Your task to perform on an android device: Go to sound settings Image 0: 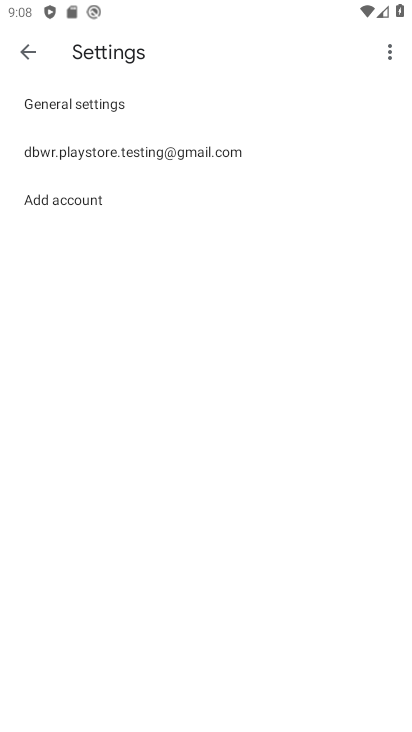
Step 0: press home button
Your task to perform on an android device: Go to sound settings Image 1: 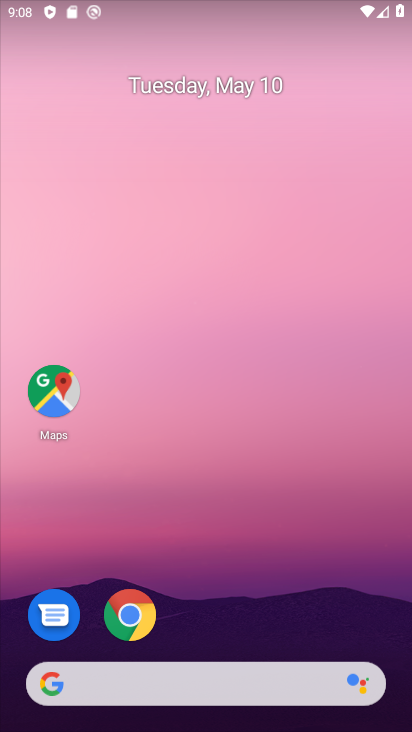
Step 1: drag from (187, 665) to (210, 293)
Your task to perform on an android device: Go to sound settings Image 2: 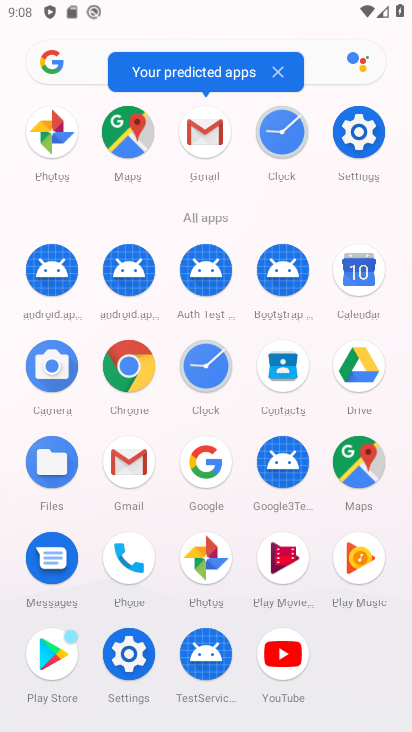
Step 2: click (129, 655)
Your task to perform on an android device: Go to sound settings Image 3: 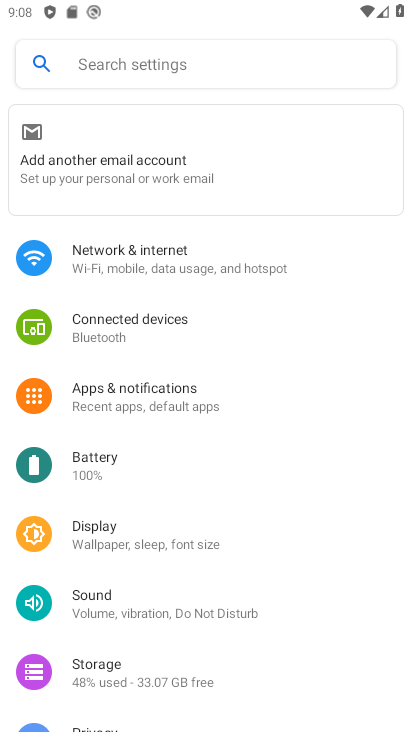
Step 3: click (111, 604)
Your task to perform on an android device: Go to sound settings Image 4: 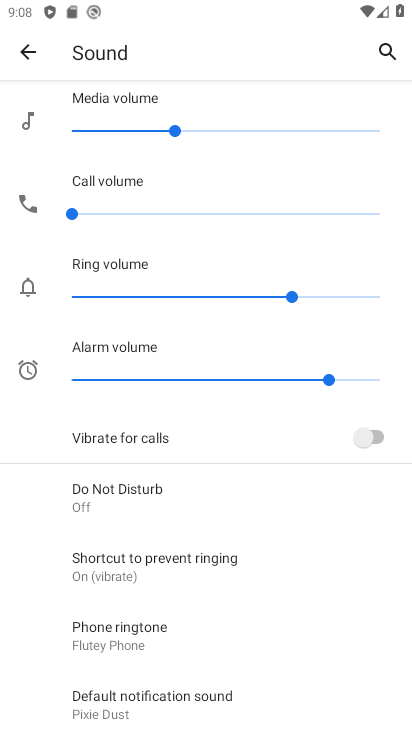
Step 4: task complete